Your task to perform on an android device: turn off notifications settings in the gmail app Image 0: 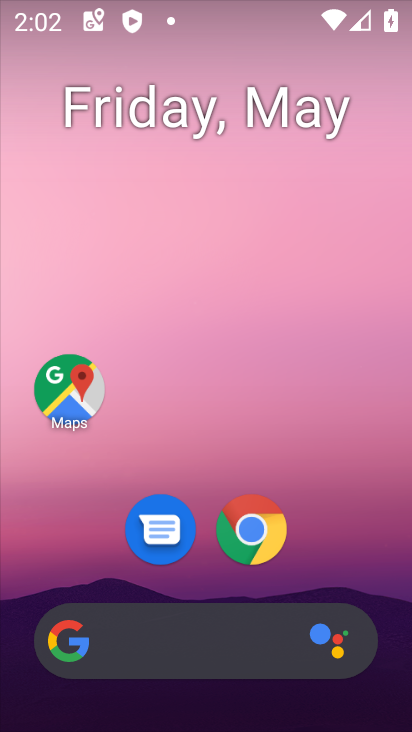
Step 0: click (351, 571)
Your task to perform on an android device: turn off notifications settings in the gmail app Image 1: 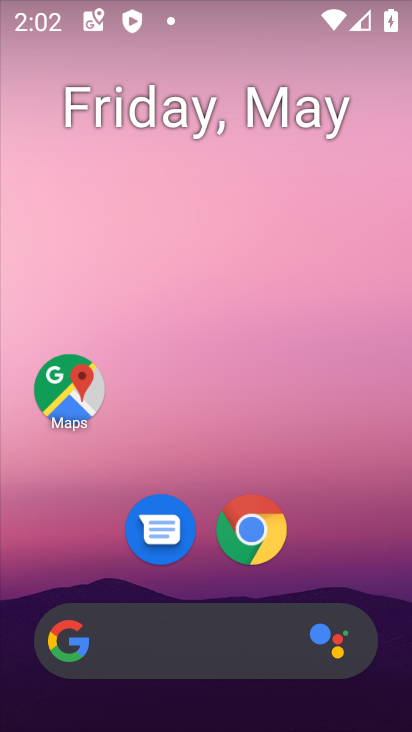
Step 1: drag from (351, 571) to (336, 130)
Your task to perform on an android device: turn off notifications settings in the gmail app Image 2: 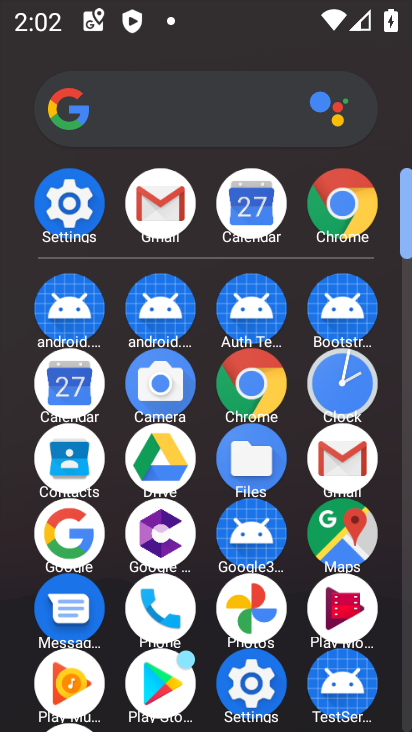
Step 2: click (352, 464)
Your task to perform on an android device: turn off notifications settings in the gmail app Image 3: 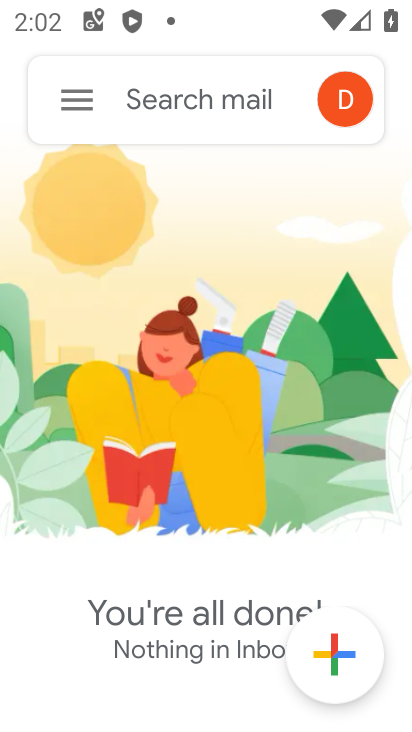
Step 3: click (71, 93)
Your task to perform on an android device: turn off notifications settings in the gmail app Image 4: 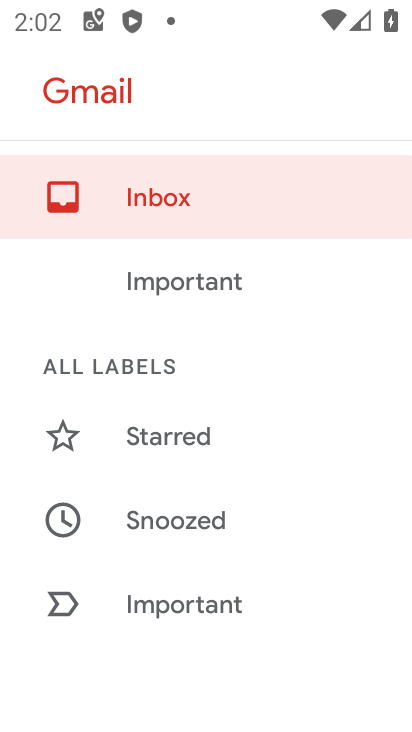
Step 4: drag from (193, 602) to (191, 385)
Your task to perform on an android device: turn off notifications settings in the gmail app Image 5: 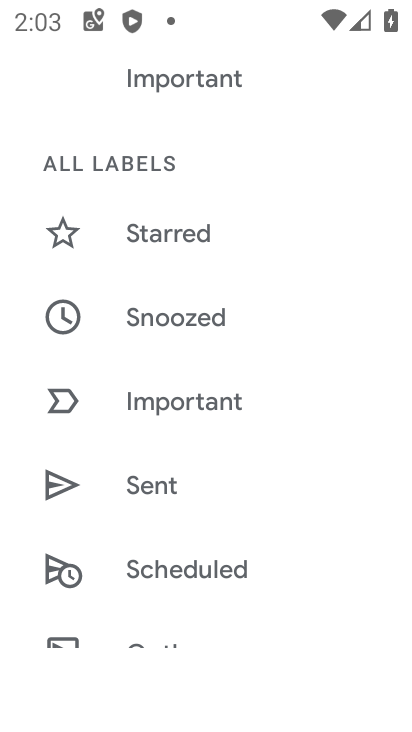
Step 5: drag from (219, 604) to (241, 323)
Your task to perform on an android device: turn off notifications settings in the gmail app Image 6: 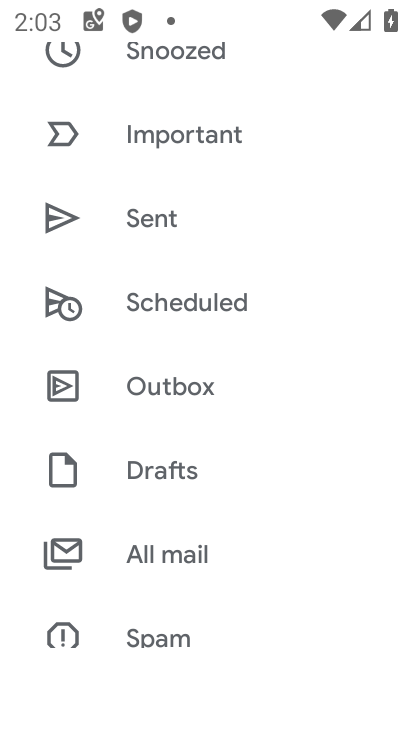
Step 6: drag from (138, 578) to (165, 341)
Your task to perform on an android device: turn off notifications settings in the gmail app Image 7: 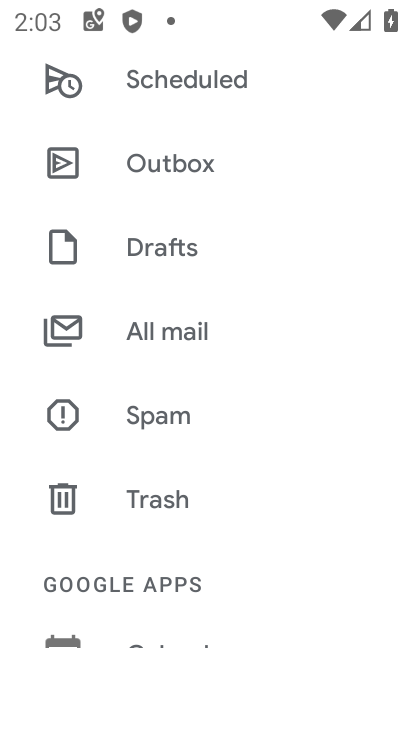
Step 7: drag from (175, 507) to (206, 236)
Your task to perform on an android device: turn off notifications settings in the gmail app Image 8: 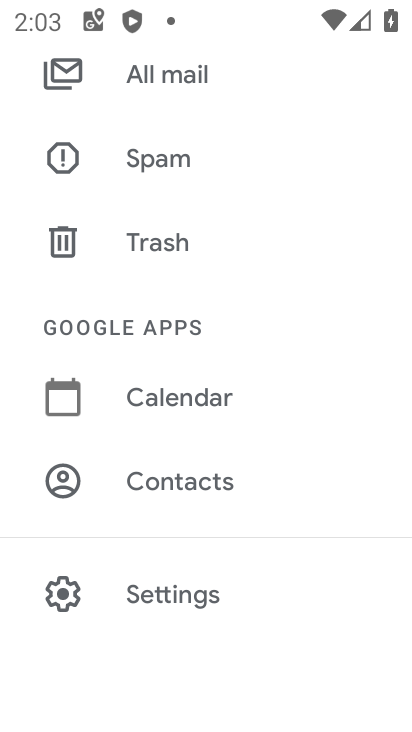
Step 8: click (90, 593)
Your task to perform on an android device: turn off notifications settings in the gmail app Image 9: 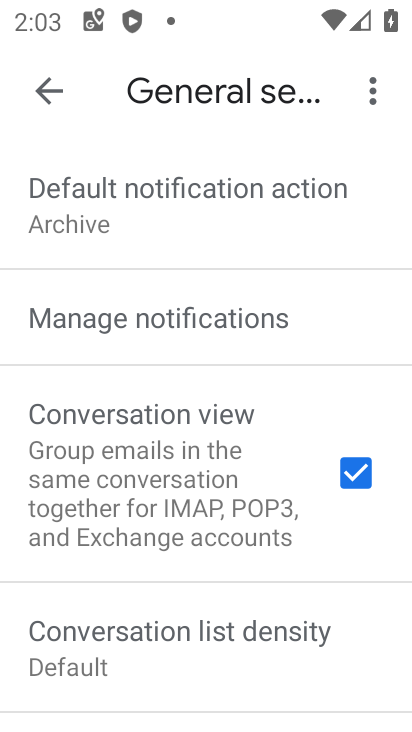
Step 9: drag from (90, 593) to (98, 471)
Your task to perform on an android device: turn off notifications settings in the gmail app Image 10: 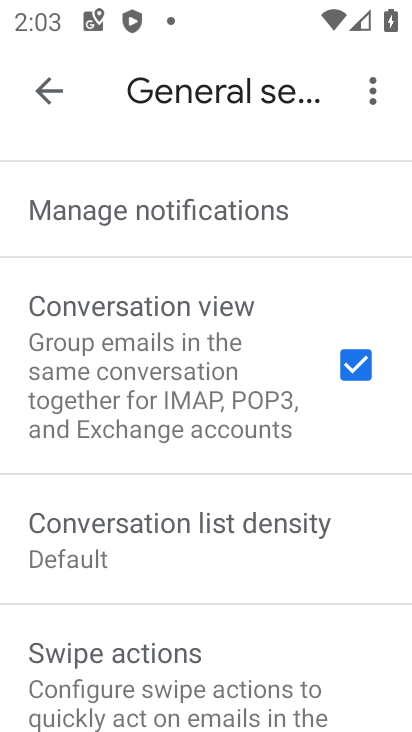
Step 10: drag from (99, 620) to (147, 568)
Your task to perform on an android device: turn off notifications settings in the gmail app Image 11: 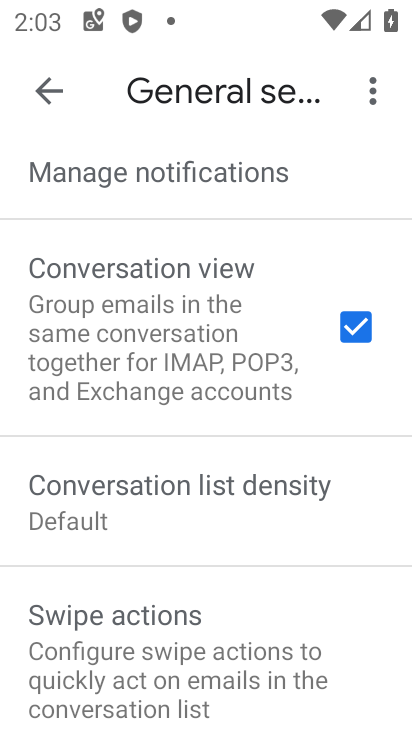
Step 11: click (194, 194)
Your task to perform on an android device: turn off notifications settings in the gmail app Image 12: 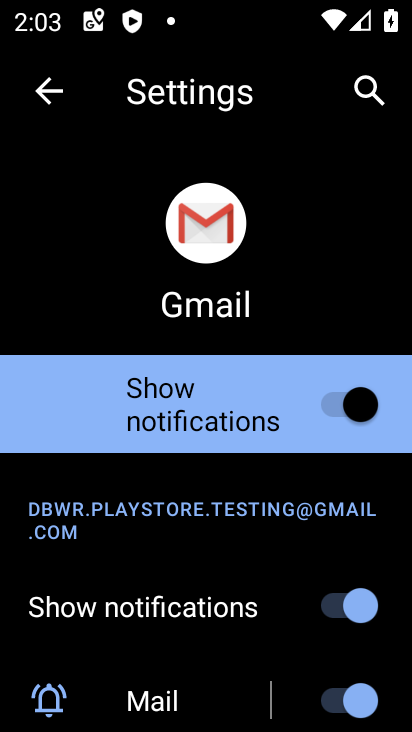
Step 12: task complete